Your task to perform on an android device: change the clock display to digital Image 0: 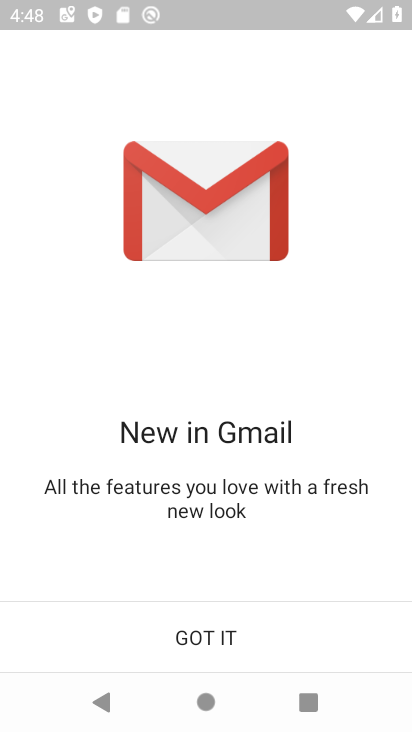
Step 0: press back button
Your task to perform on an android device: change the clock display to digital Image 1: 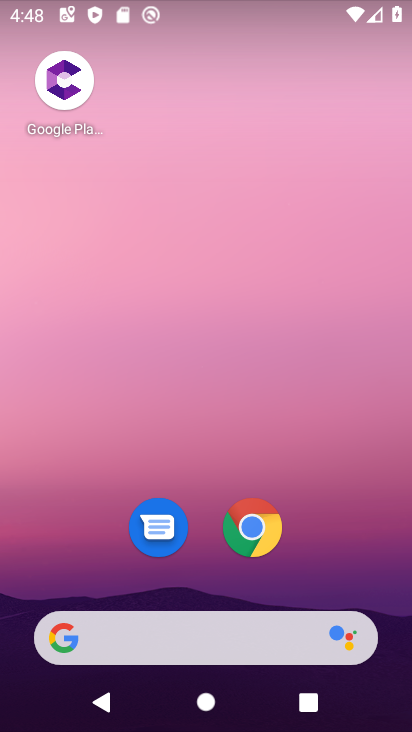
Step 1: drag from (222, 612) to (252, 200)
Your task to perform on an android device: change the clock display to digital Image 2: 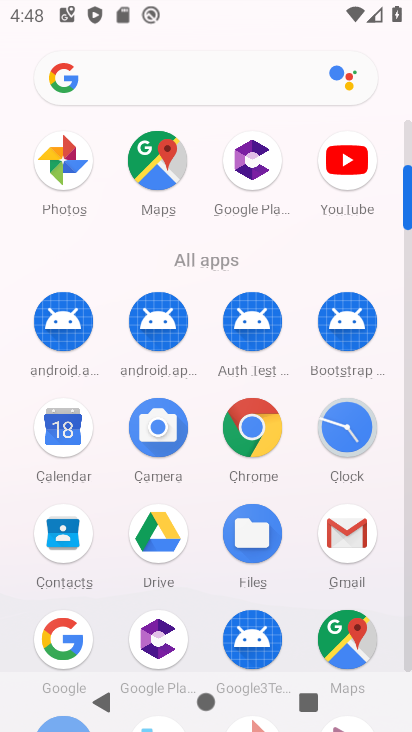
Step 2: click (347, 435)
Your task to perform on an android device: change the clock display to digital Image 3: 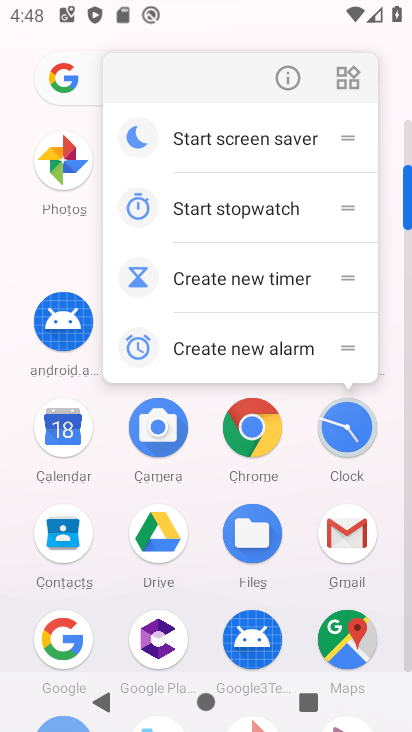
Step 3: click (341, 429)
Your task to perform on an android device: change the clock display to digital Image 4: 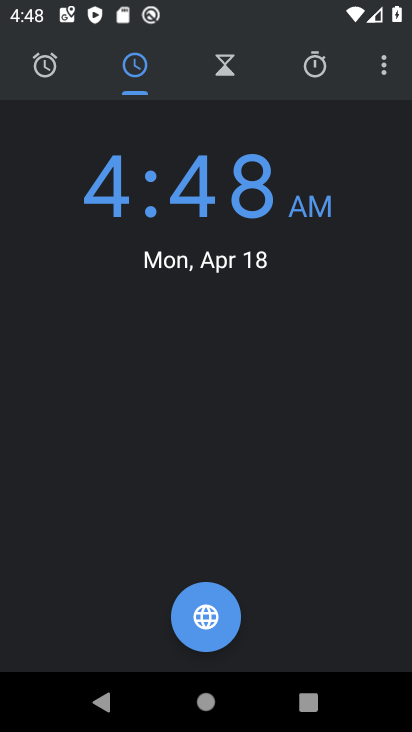
Step 4: click (381, 72)
Your task to perform on an android device: change the clock display to digital Image 5: 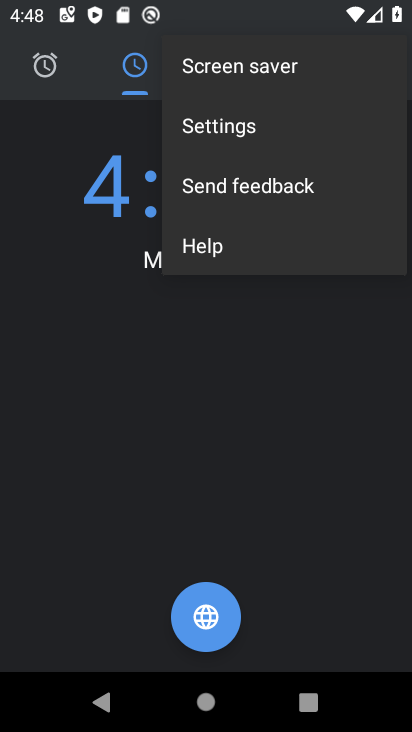
Step 5: click (222, 126)
Your task to perform on an android device: change the clock display to digital Image 6: 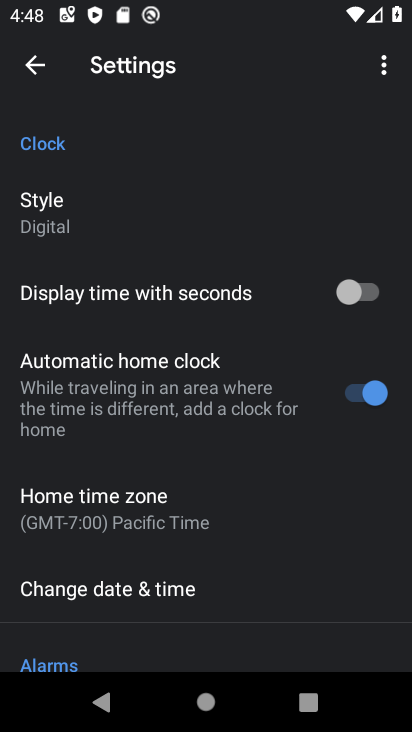
Step 6: click (56, 196)
Your task to perform on an android device: change the clock display to digital Image 7: 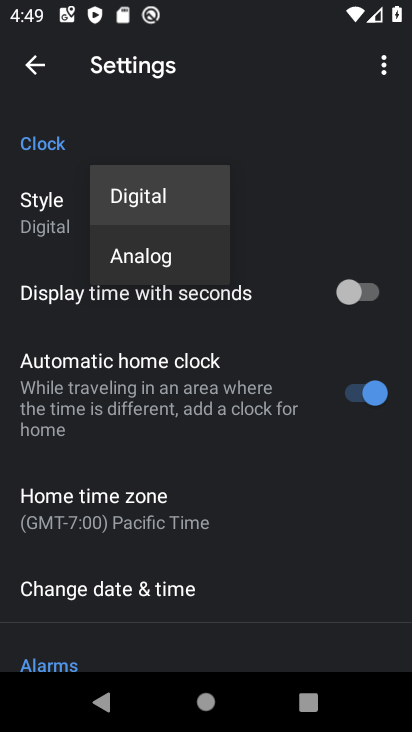
Step 7: task complete